Your task to perform on an android device: toggle airplane mode Image 0: 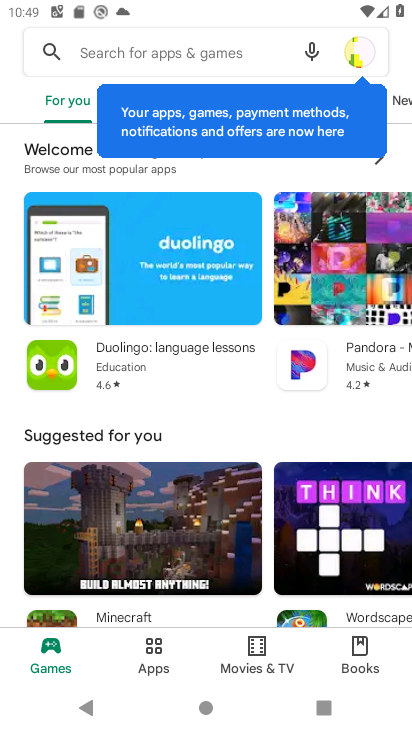
Step 0: press home button
Your task to perform on an android device: toggle airplane mode Image 1: 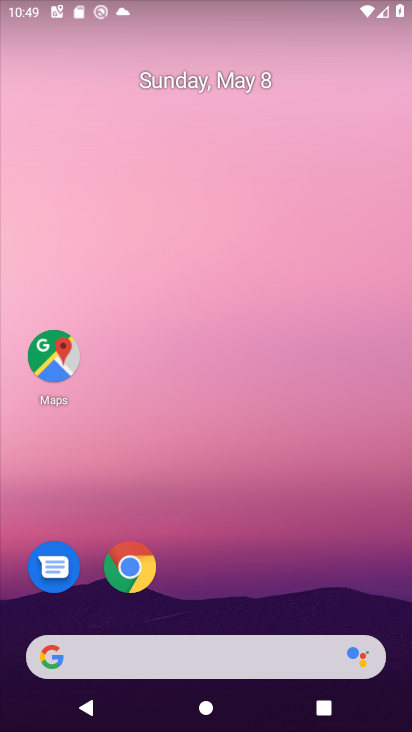
Step 1: drag from (255, 594) to (171, 164)
Your task to perform on an android device: toggle airplane mode Image 2: 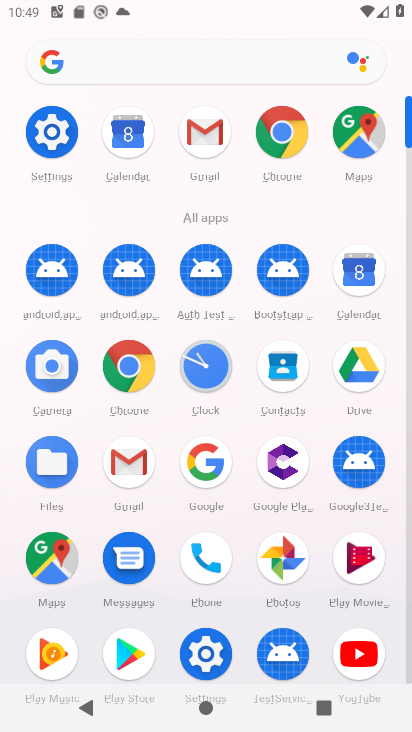
Step 2: click (64, 147)
Your task to perform on an android device: toggle airplane mode Image 3: 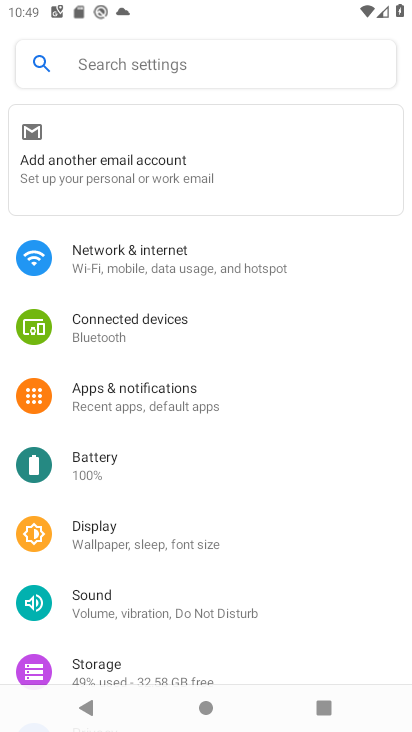
Step 3: click (163, 277)
Your task to perform on an android device: toggle airplane mode Image 4: 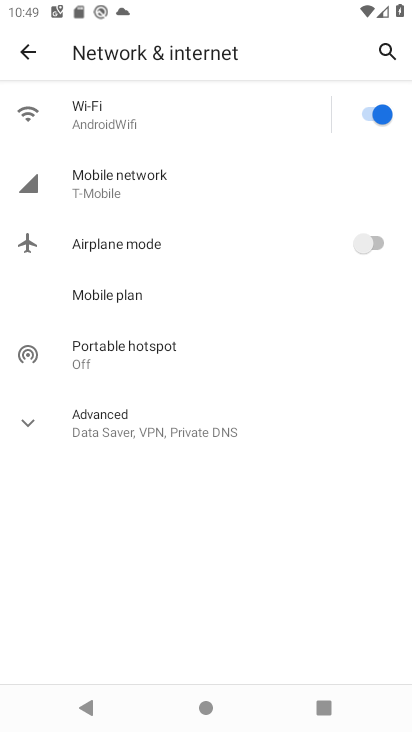
Step 4: click (386, 245)
Your task to perform on an android device: toggle airplane mode Image 5: 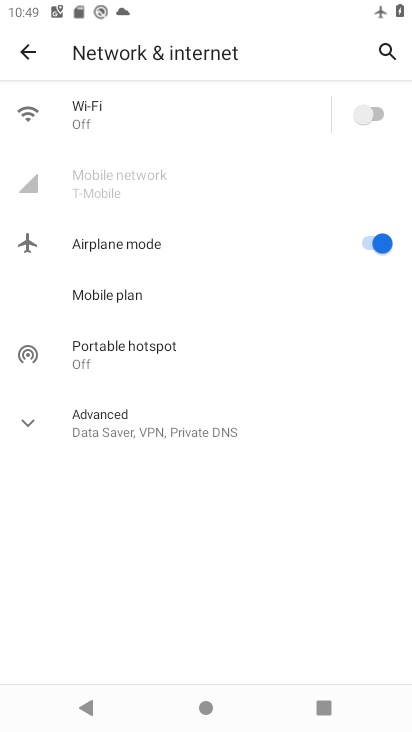
Step 5: task complete